Your task to perform on an android device: Show me popular videos on Youtube Image 0: 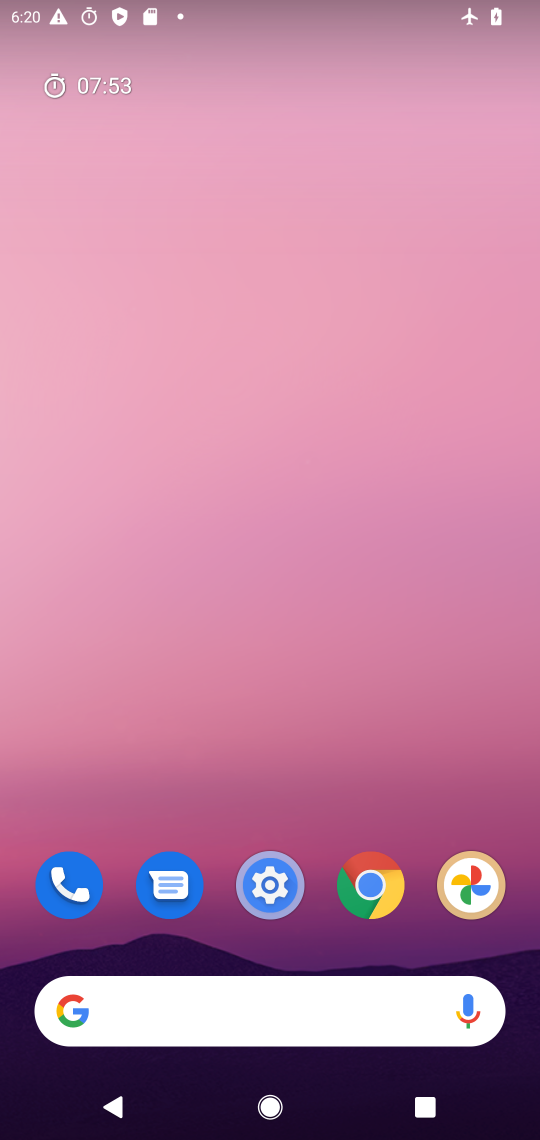
Step 0: drag from (280, 956) to (282, 32)
Your task to perform on an android device: Show me popular videos on Youtube Image 1: 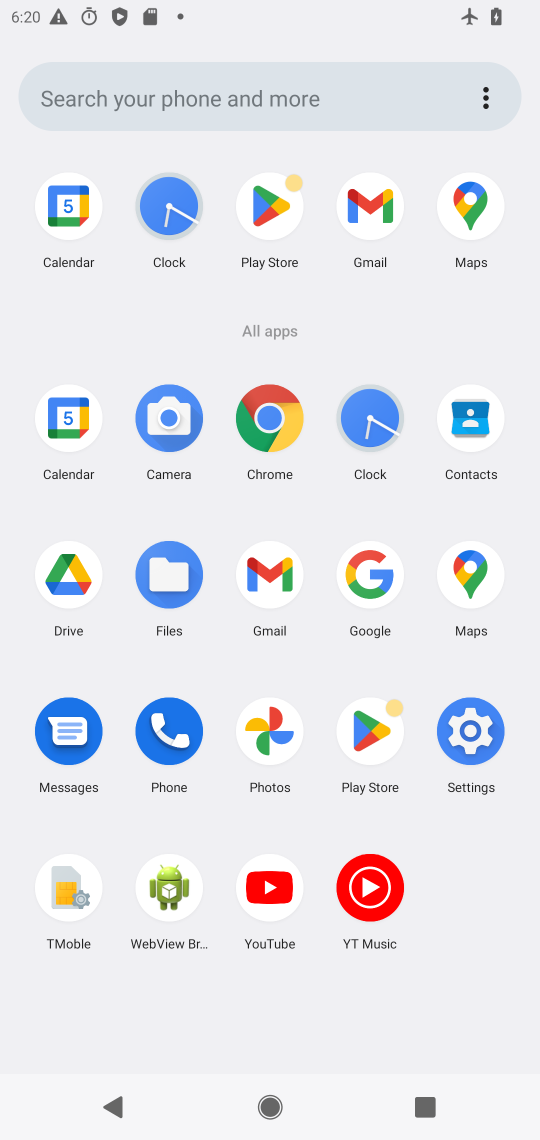
Step 1: click (278, 922)
Your task to perform on an android device: Show me popular videos on Youtube Image 2: 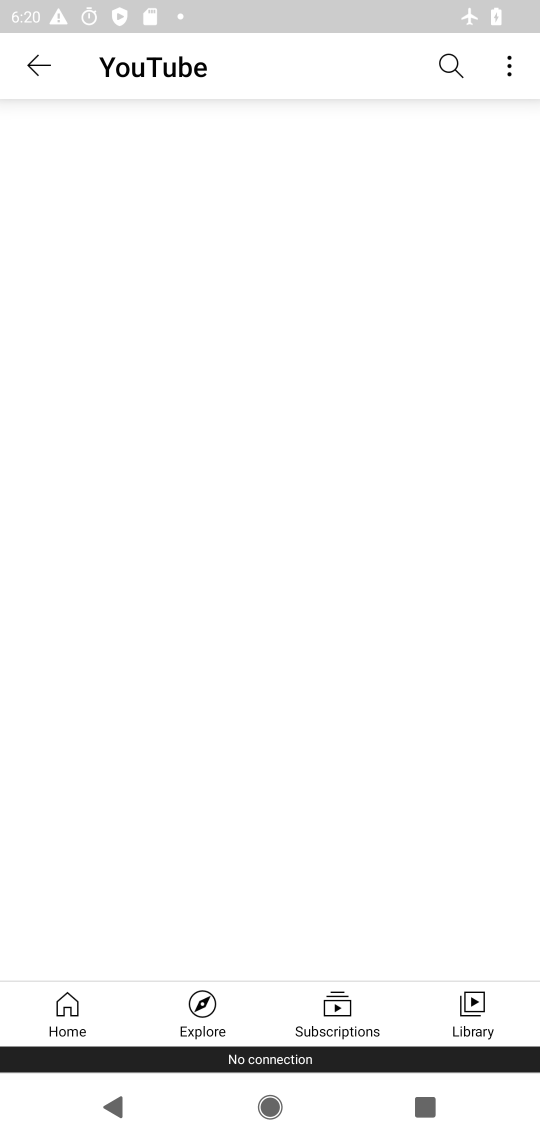
Step 2: task complete